Your task to perform on an android device: toggle location history Image 0: 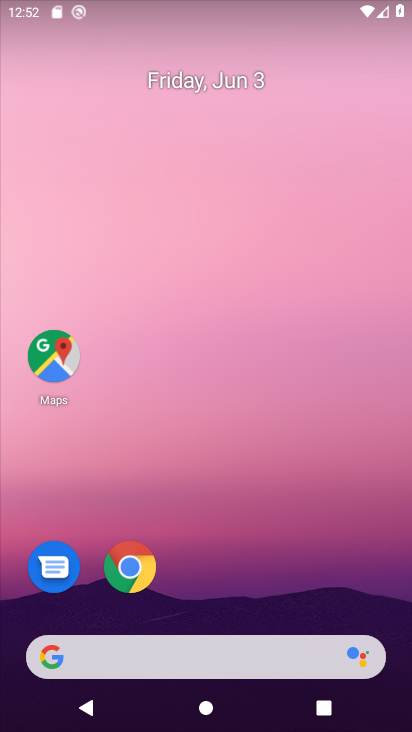
Step 0: drag from (195, 567) to (224, 236)
Your task to perform on an android device: toggle location history Image 1: 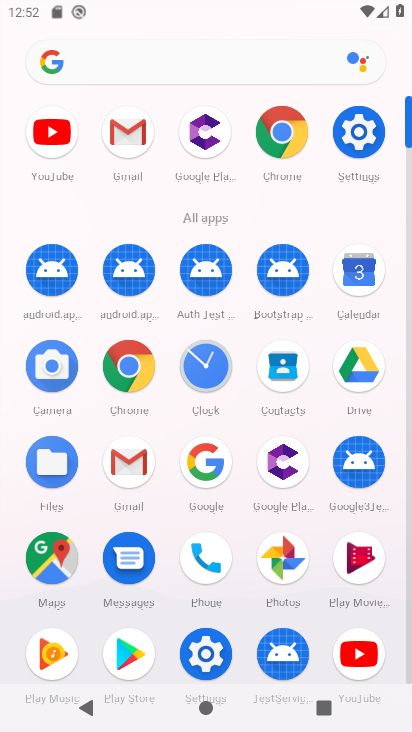
Step 1: click (350, 127)
Your task to perform on an android device: toggle location history Image 2: 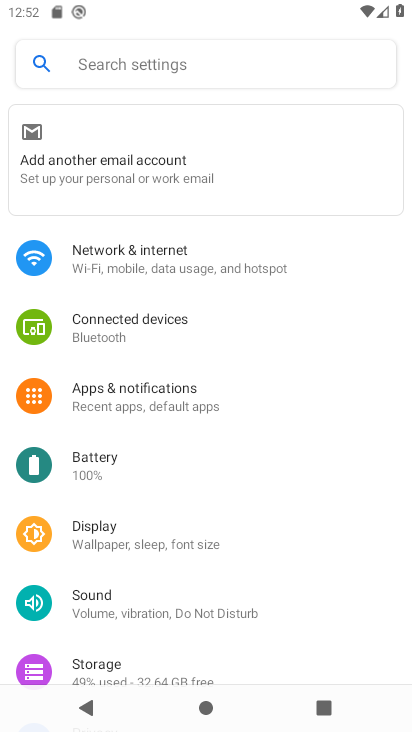
Step 2: drag from (147, 601) to (135, 285)
Your task to perform on an android device: toggle location history Image 3: 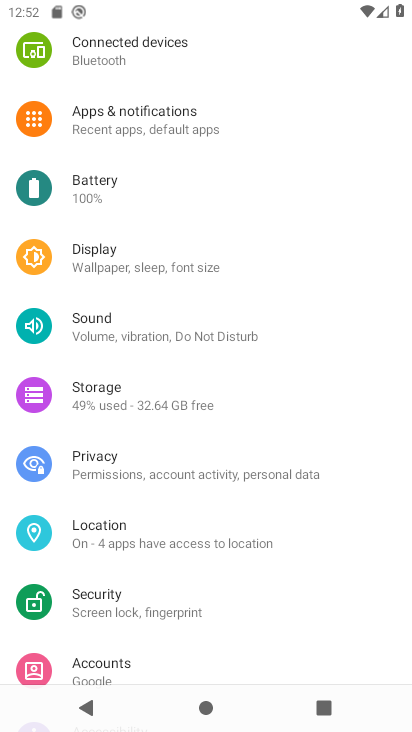
Step 3: click (115, 512)
Your task to perform on an android device: toggle location history Image 4: 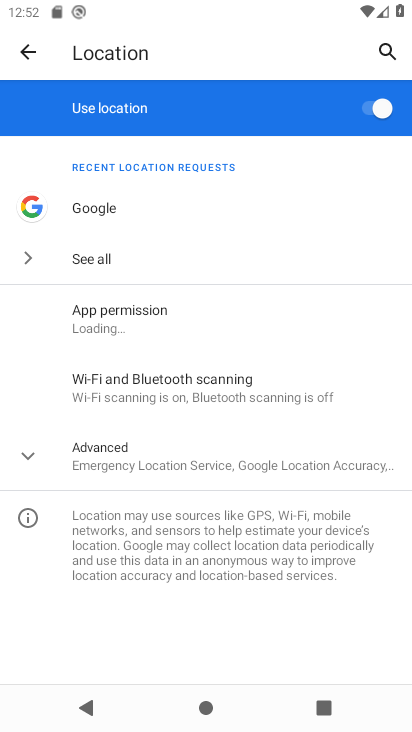
Step 4: click (156, 459)
Your task to perform on an android device: toggle location history Image 5: 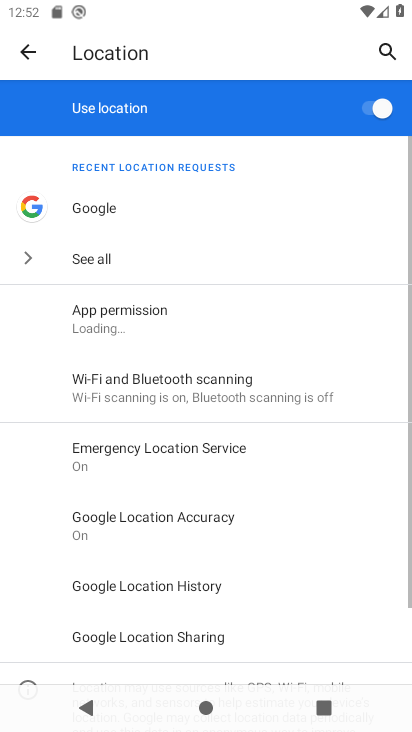
Step 5: drag from (133, 639) to (154, 436)
Your task to perform on an android device: toggle location history Image 6: 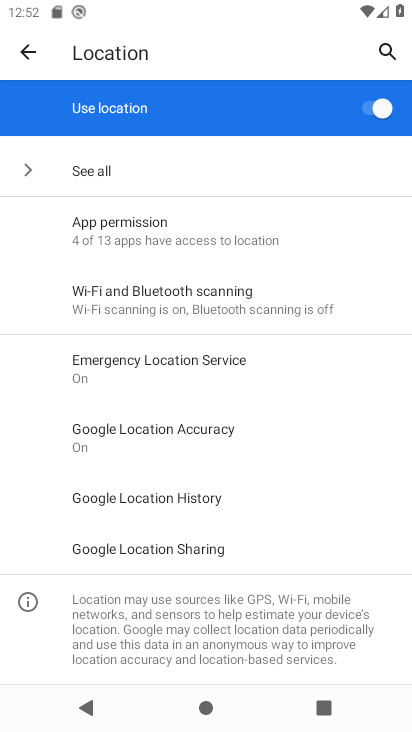
Step 6: click (176, 493)
Your task to perform on an android device: toggle location history Image 7: 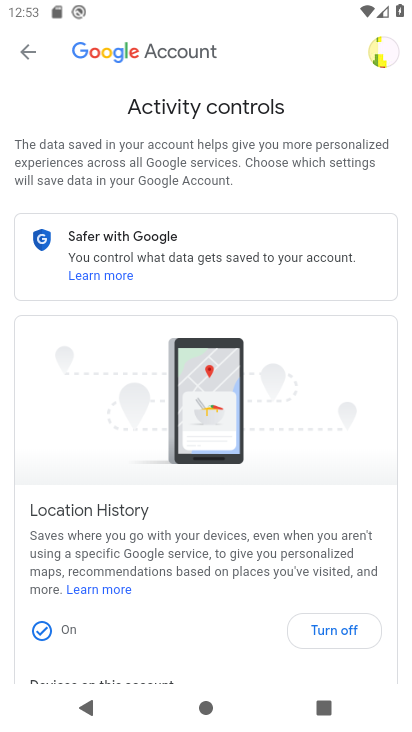
Step 7: click (301, 627)
Your task to perform on an android device: toggle location history Image 8: 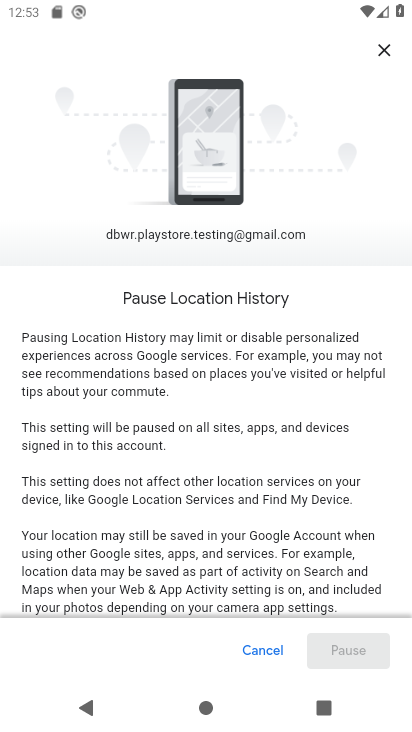
Step 8: task complete